Your task to perform on an android device: turn on notifications settings in the gmail app Image 0: 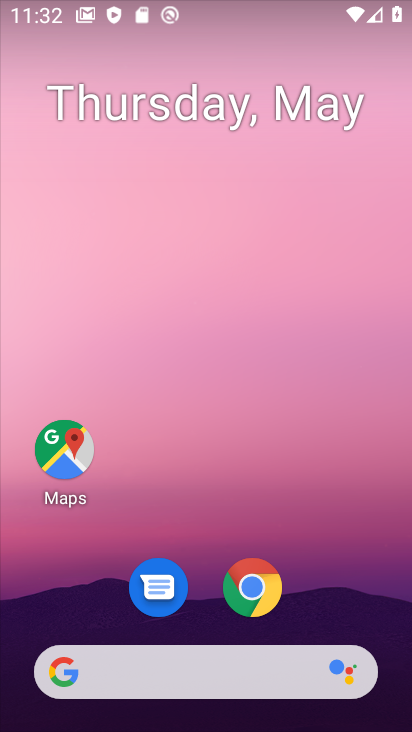
Step 0: drag from (197, 613) to (310, 56)
Your task to perform on an android device: turn on notifications settings in the gmail app Image 1: 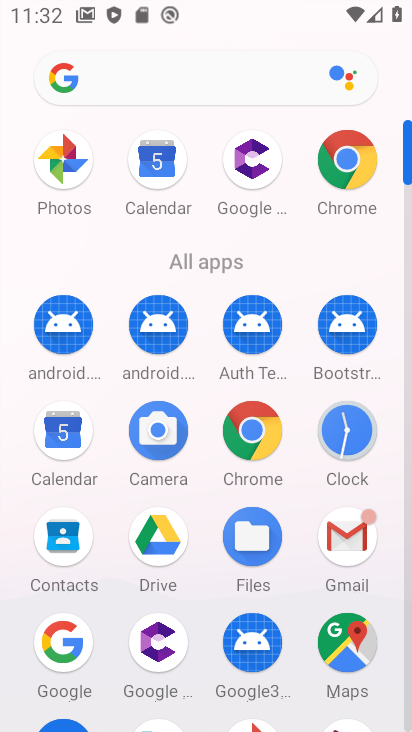
Step 1: click (328, 526)
Your task to perform on an android device: turn on notifications settings in the gmail app Image 2: 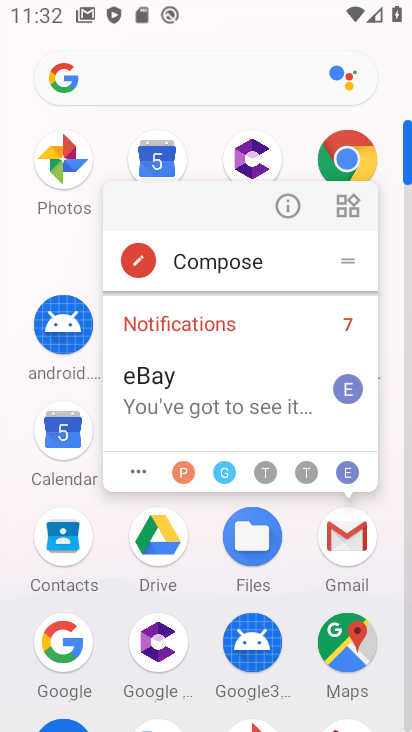
Step 2: click (294, 205)
Your task to perform on an android device: turn on notifications settings in the gmail app Image 3: 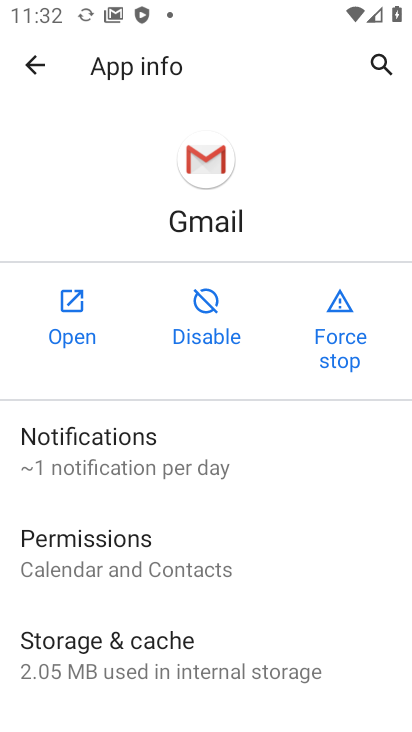
Step 3: click (103, 454)
Your task to perform on an android device: turn on notifications settings in the gmail app Image 4: 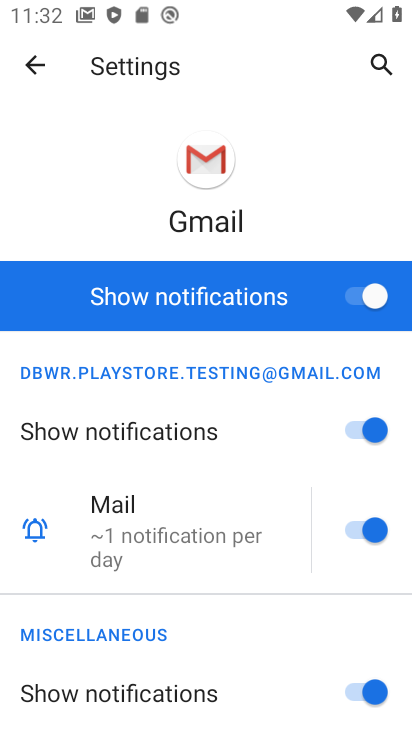
Step 4: task complete